Your task to perform on an android device: Open calendar and show me the first week of next month Image 0: 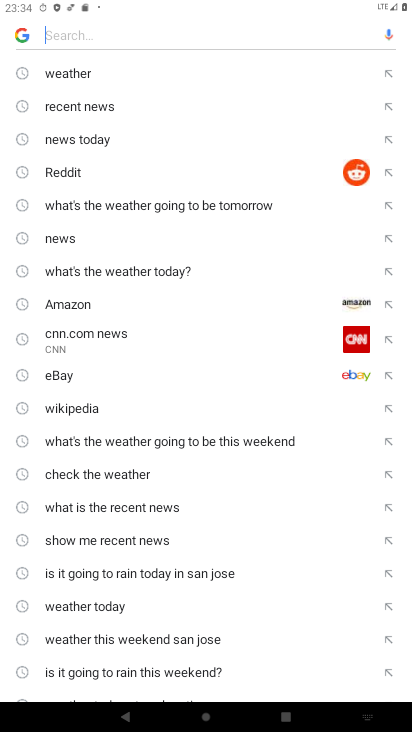
Step 0: press back button
Your task to perform on an android device: Open calendar and show me the first week of next month Image 1: 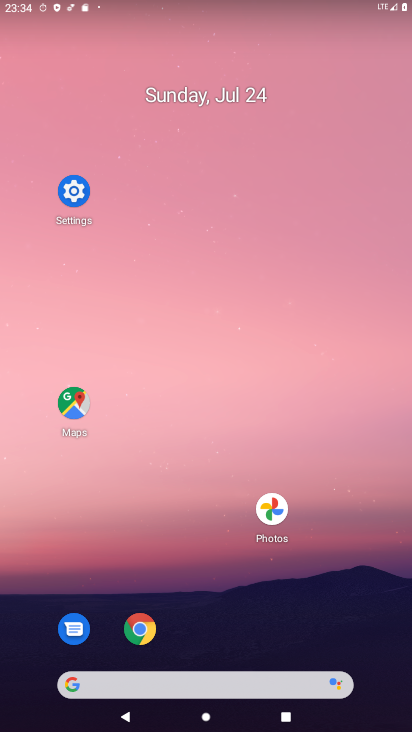
Step 1: drag from (262, 702) to (239, 86)
Your task to perform on an android device: Open calendar and show me the first week of next month Image 2: 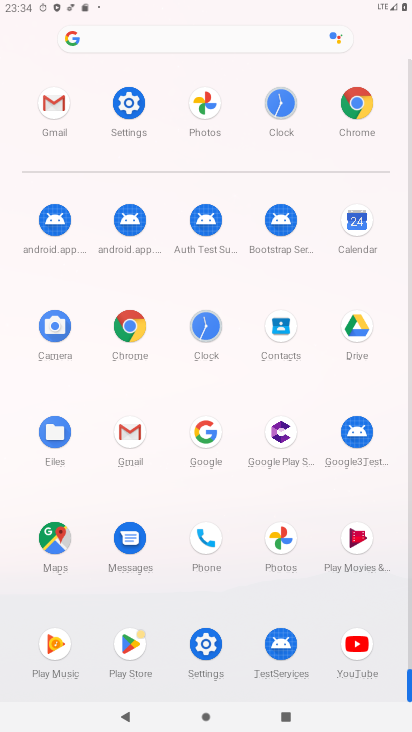
Step 2: click (357, 227)
Your task to perform on an android device: Open calendar and show me the first week of next month Image 3: 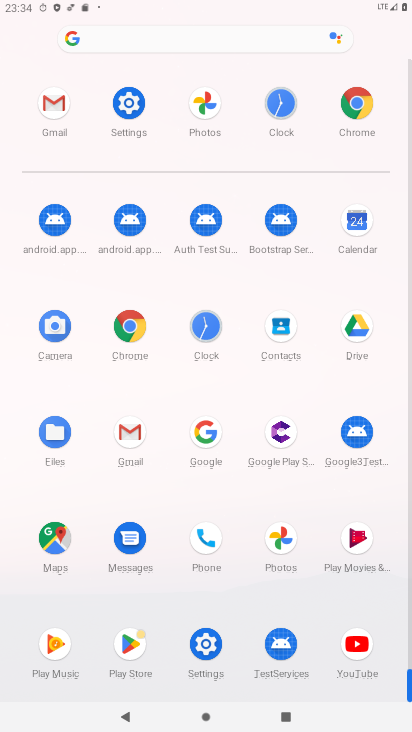
Step 3: click (347, 207)
Your task to perform on an android device: Open calendar and show me the first week of next month Image 4: 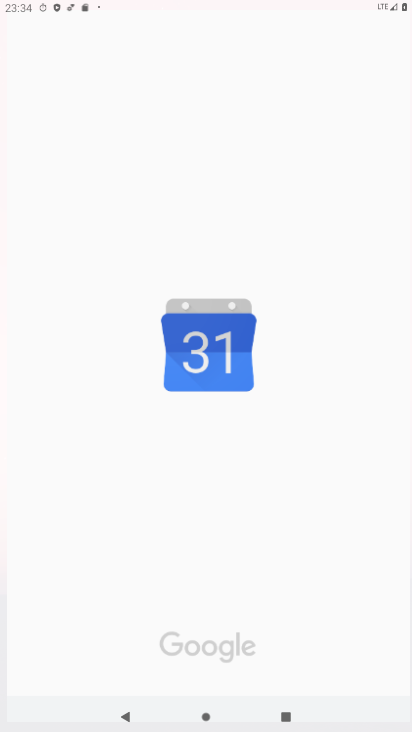
Step 4: click (358, 193)
Your task to perform on an android device: Open calendar and show me the first week of next month Image 5: 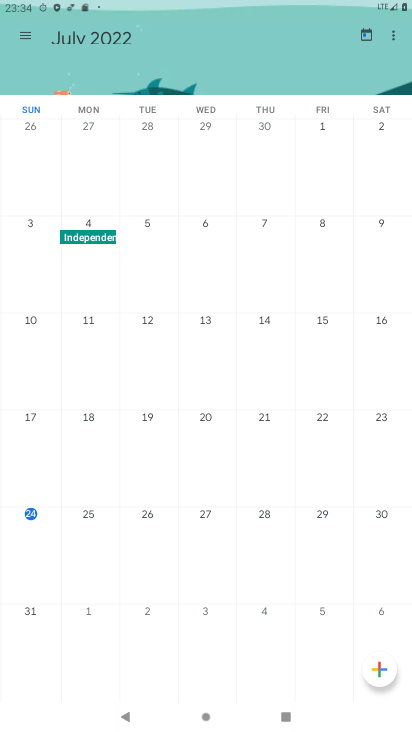
Step 5: drag from (315, 329) to (134, 302)
Your task to perform on an android device: Open calendar and show me the first week of next month Image 6: 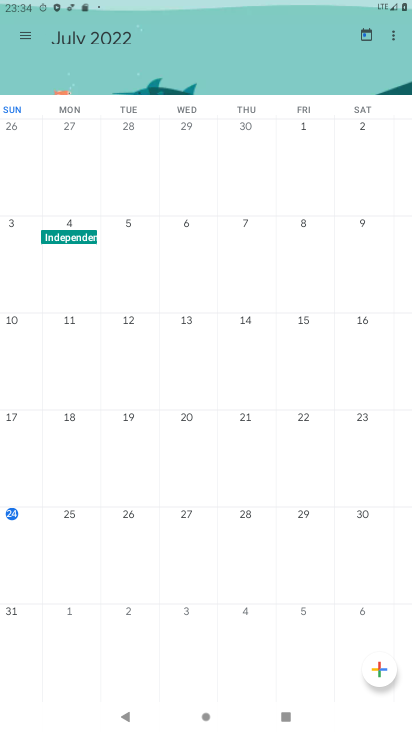
Step 6: drag from (251, 339) to (18, 300)
Your task to perform on an android device: Open calendar and show me the first week of next month Image 7: 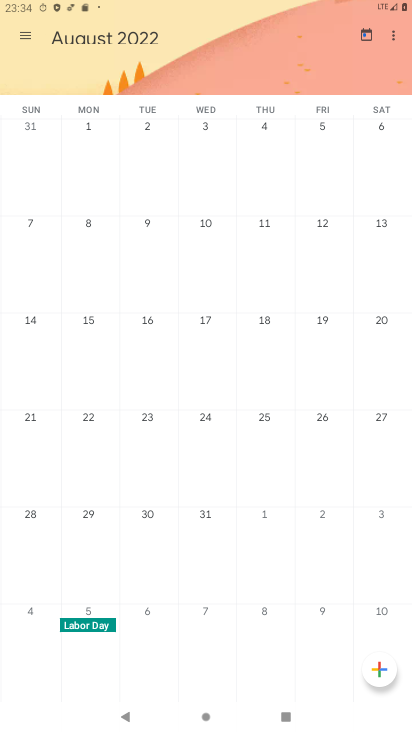
Step 7: drag from (242, 336) to (2, 248)
Your task to perform on an android device: Open calendar and show me the first week of next month Image 8: 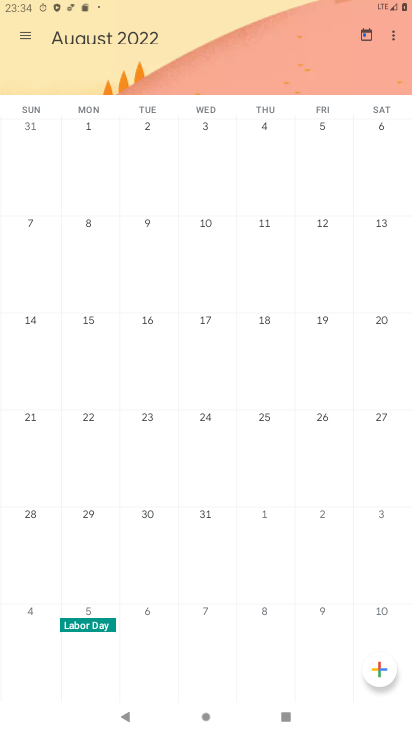
Step 8: click (203, 118)
Your task to perform on an android device: Open calendar and show me the first week of next month Image 9: 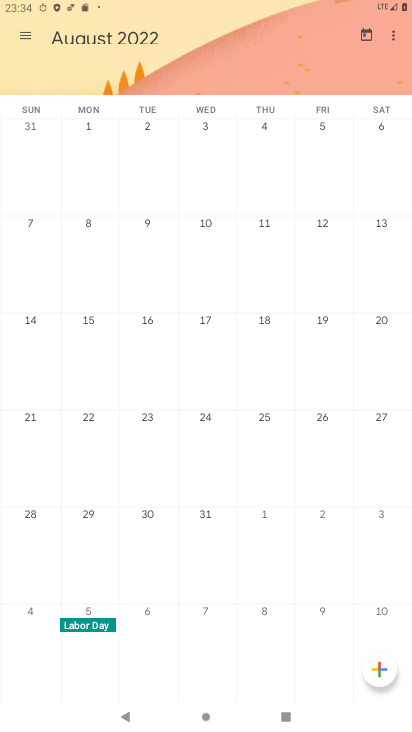
Step 9: click (204, 117)
Your task to perform on an android device: Open calendar and show me the first week of next month Image 10: 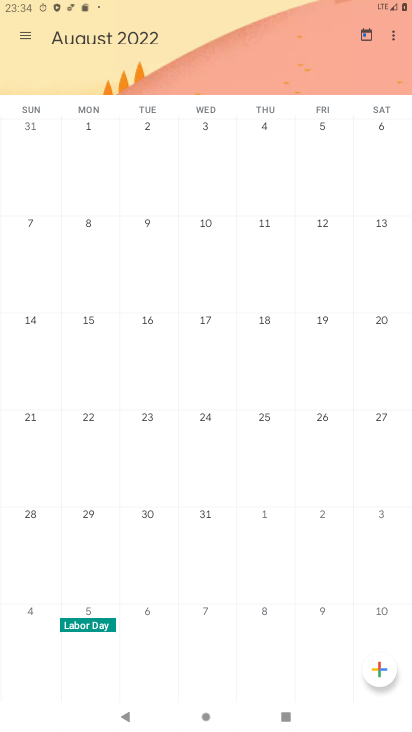
Step 10: click (207, 127)
Your task to perform on an android device: Open calendar and show me the first week of next month Image 11: 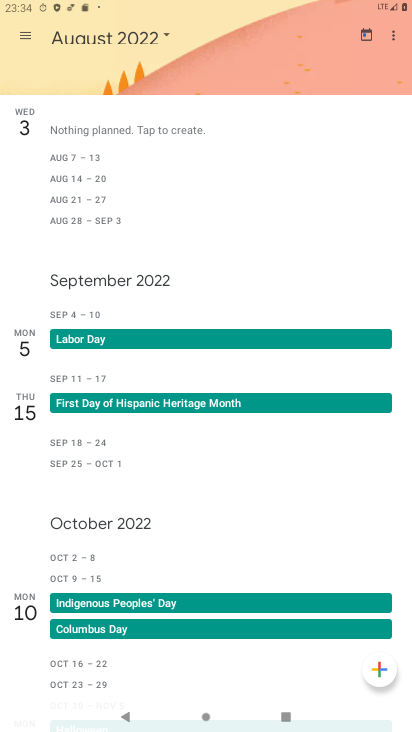
Step 11: click (207, 127)
Your task to perform on an android device: Open calendar and show me the first week of next month Image 12: 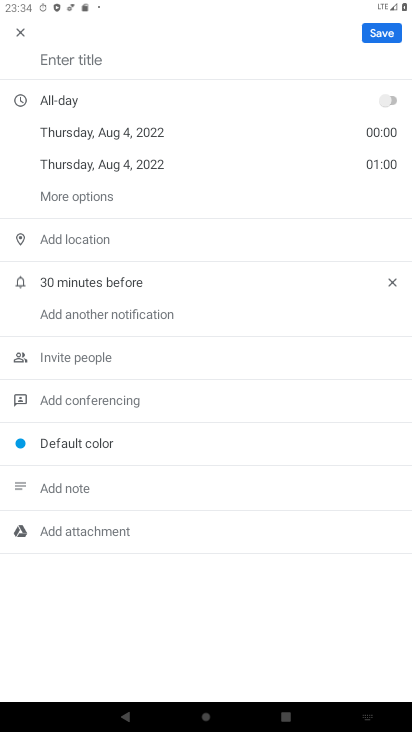
Step 12: task complete